Your task to perform on an android device: change the clock display to show seconds Image 0: 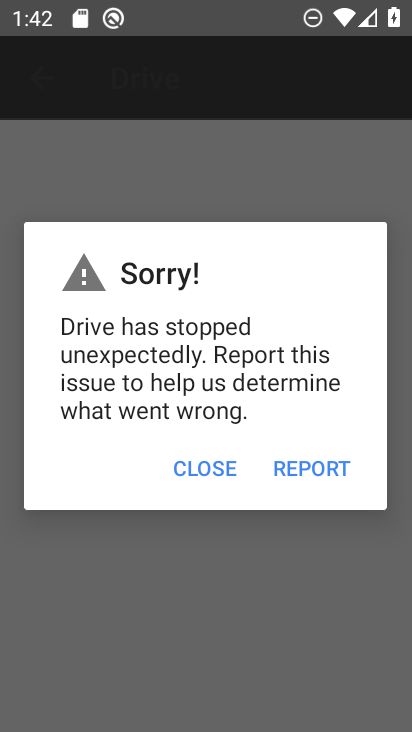
Step 0: press home button
Your task to perform on an android device: change the clock display to show seconds Image 1: 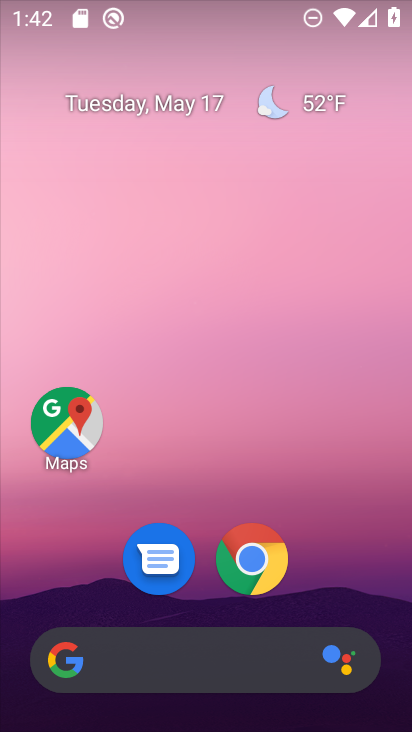
Step 1: drag from (343, 561) to (273, 146)
Your task to perform on an android device: change the clock display to show seconds Image 2: 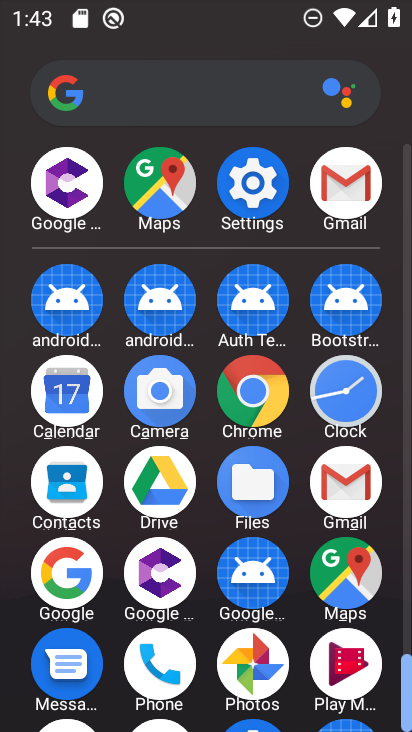
Step 2: click (346, 392)
Your task to perform on an android device: change the clock display to show seconds Image 3: 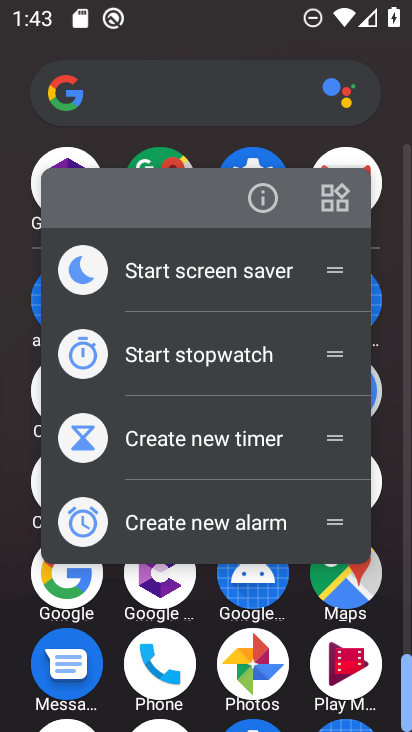
Step 3: click (390, 367)
Your task to perform on an android device: change the clock display to show seconds Image 4: 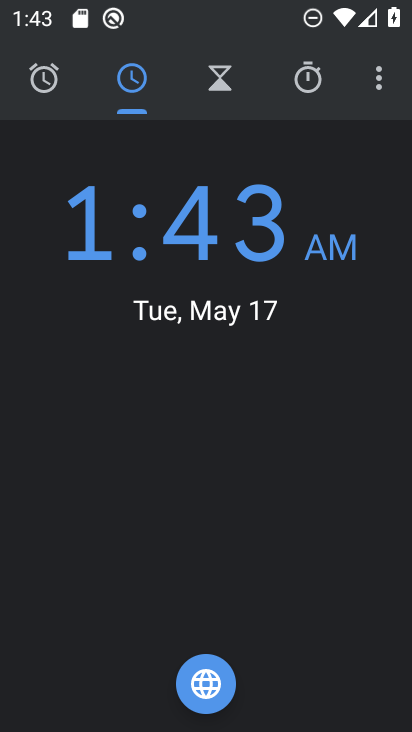
Step 4: click (382, 77)
Your task to perform on an android device: change the clock display to show seconds Image 5: 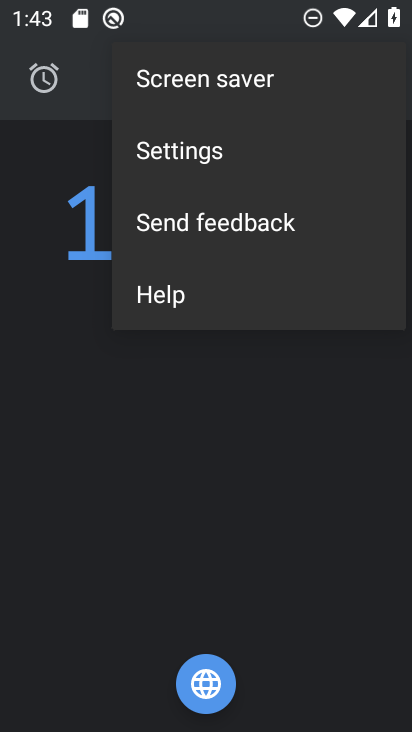
Step 5: click (211, 156)
Your task to perform on an android device: change the clock display to show seconds Image 6: 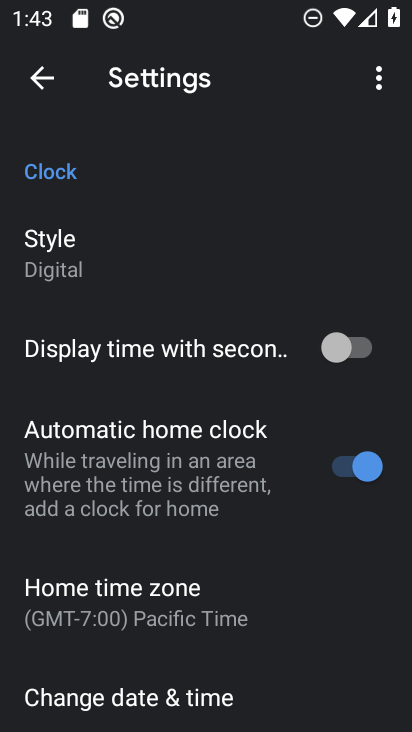
Step 6: click (344, 348)
Your task to perform on an android device: change the clock display to show seconds Image 7: 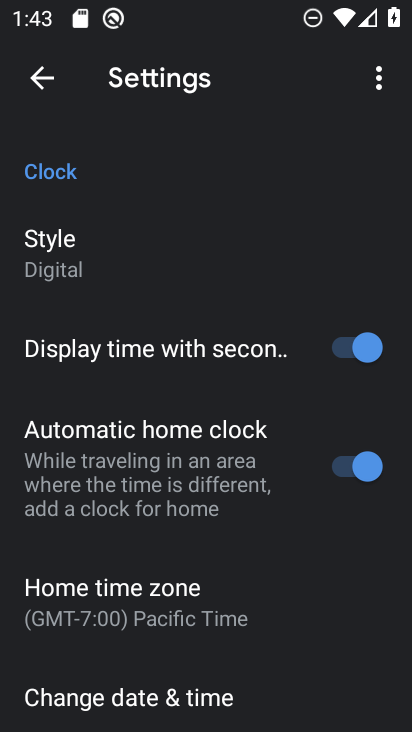
Step 7: task complete